Your task to perform on an android device: turn on the 12-hour format for clock Image 0: 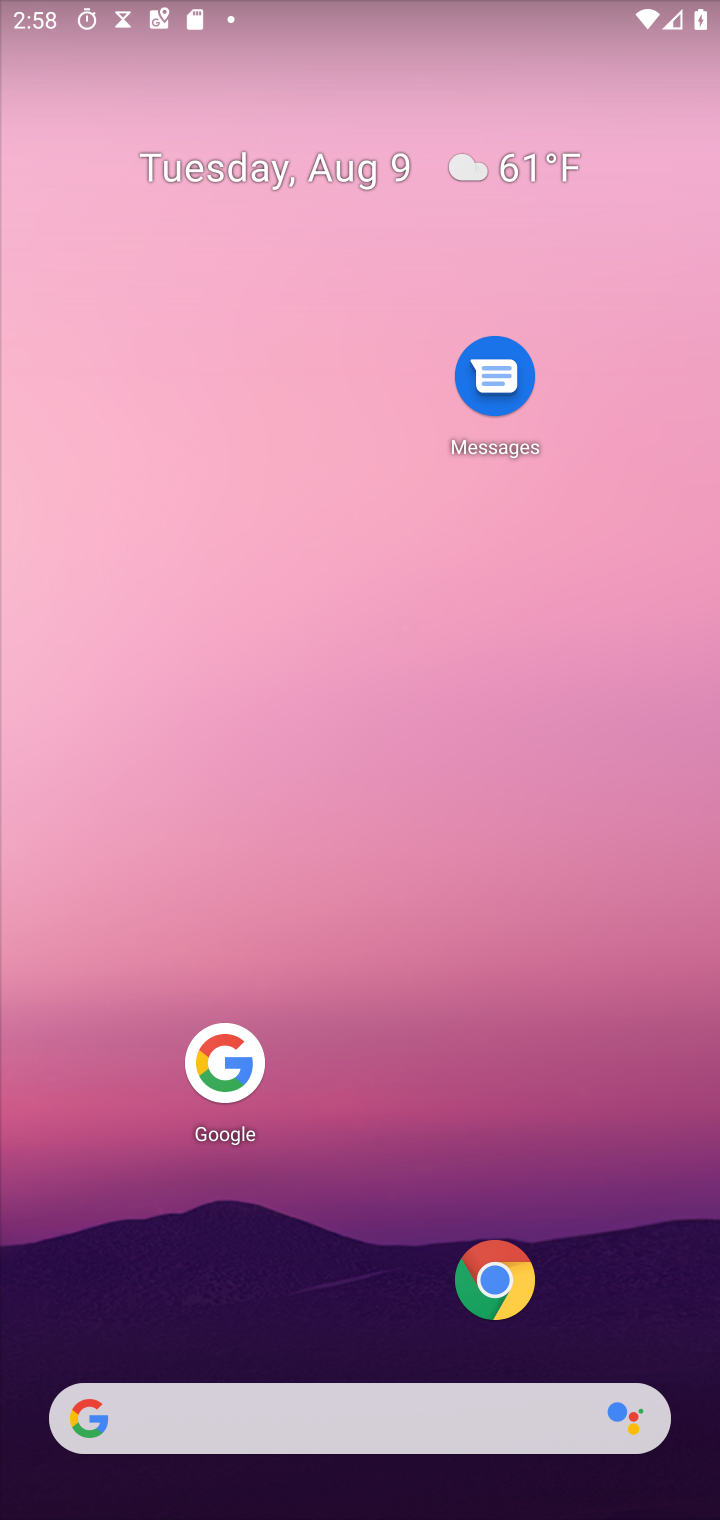
Step 0: press home button
Your task to perform on an android device: turn on the 12-hour format for clock Image 1: 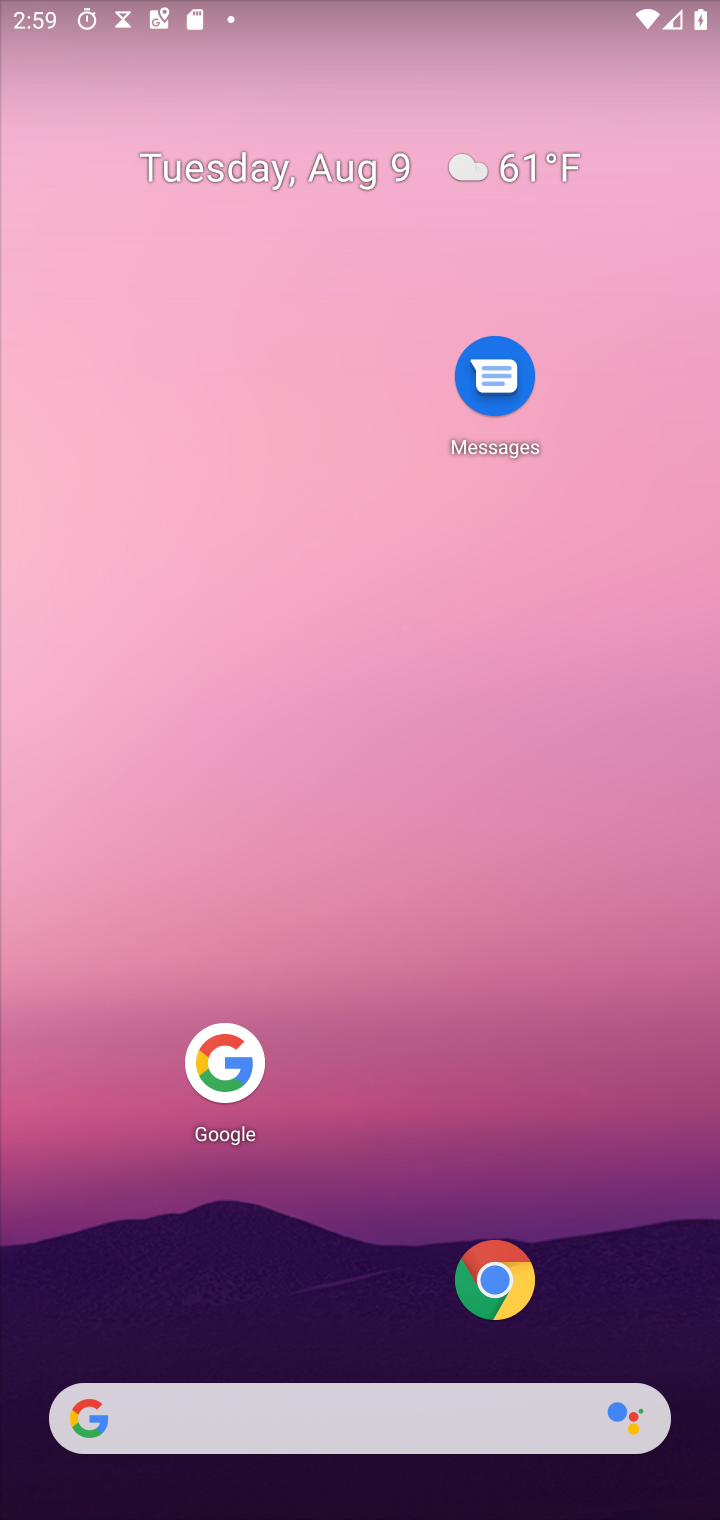
Step 1: drag from (358, 1112) to (472, 136)
Your task to perform on an android device: turn on the 12-hour format for clock Image 2: 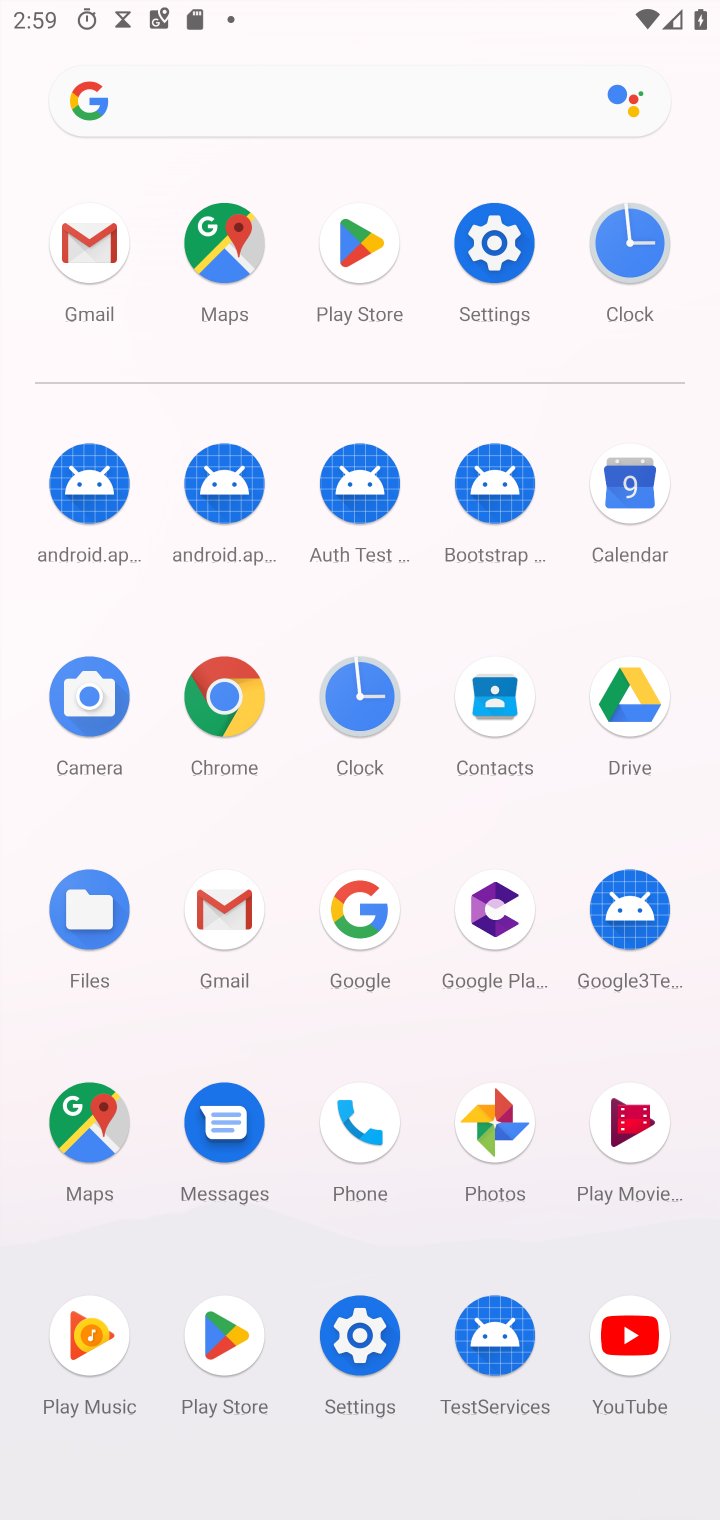
Step 2: click (370, 694)
Your task to perform on an android device: turn on the 12-hour format for clock Image 3: 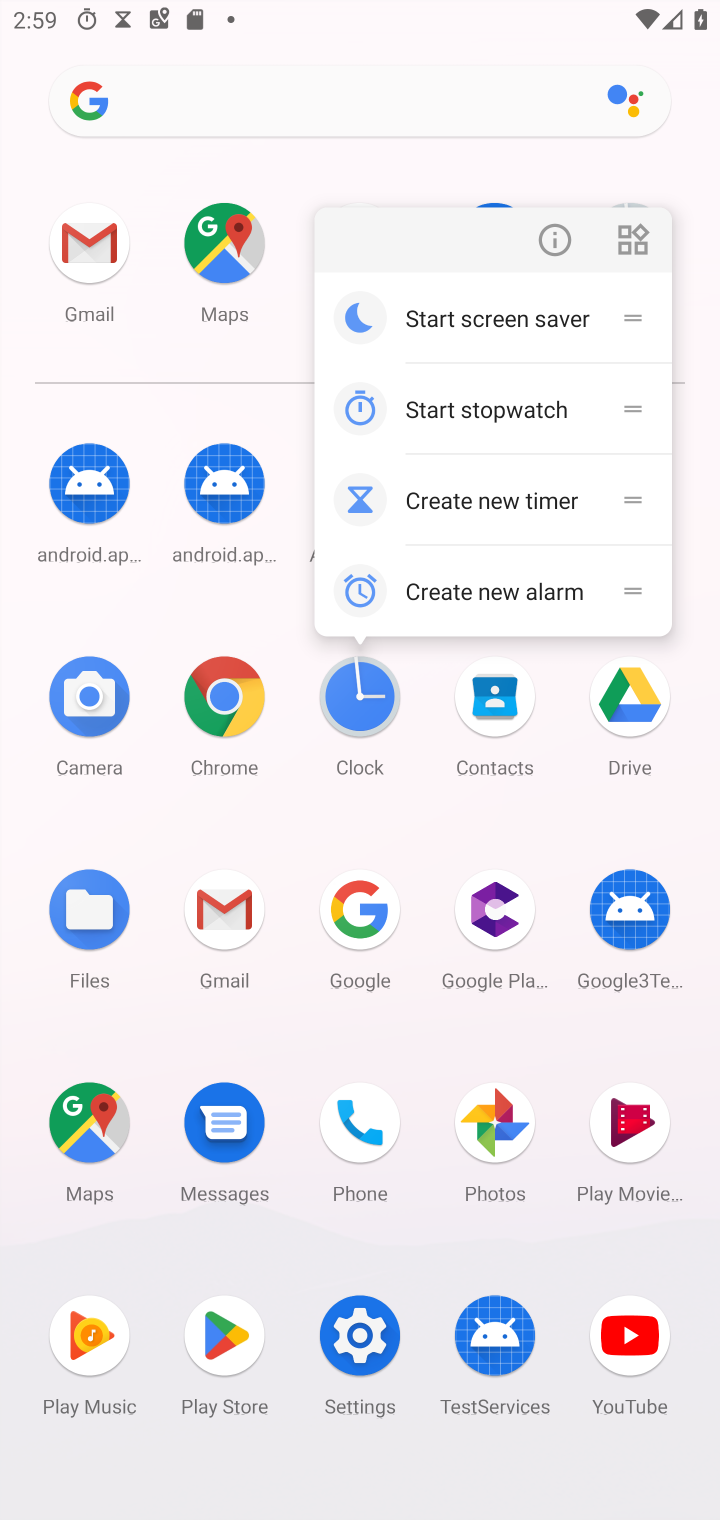
Step 3: click (370, 690)
Your task to perform on an android device: turn on the 12-hour format for clock Image 4: 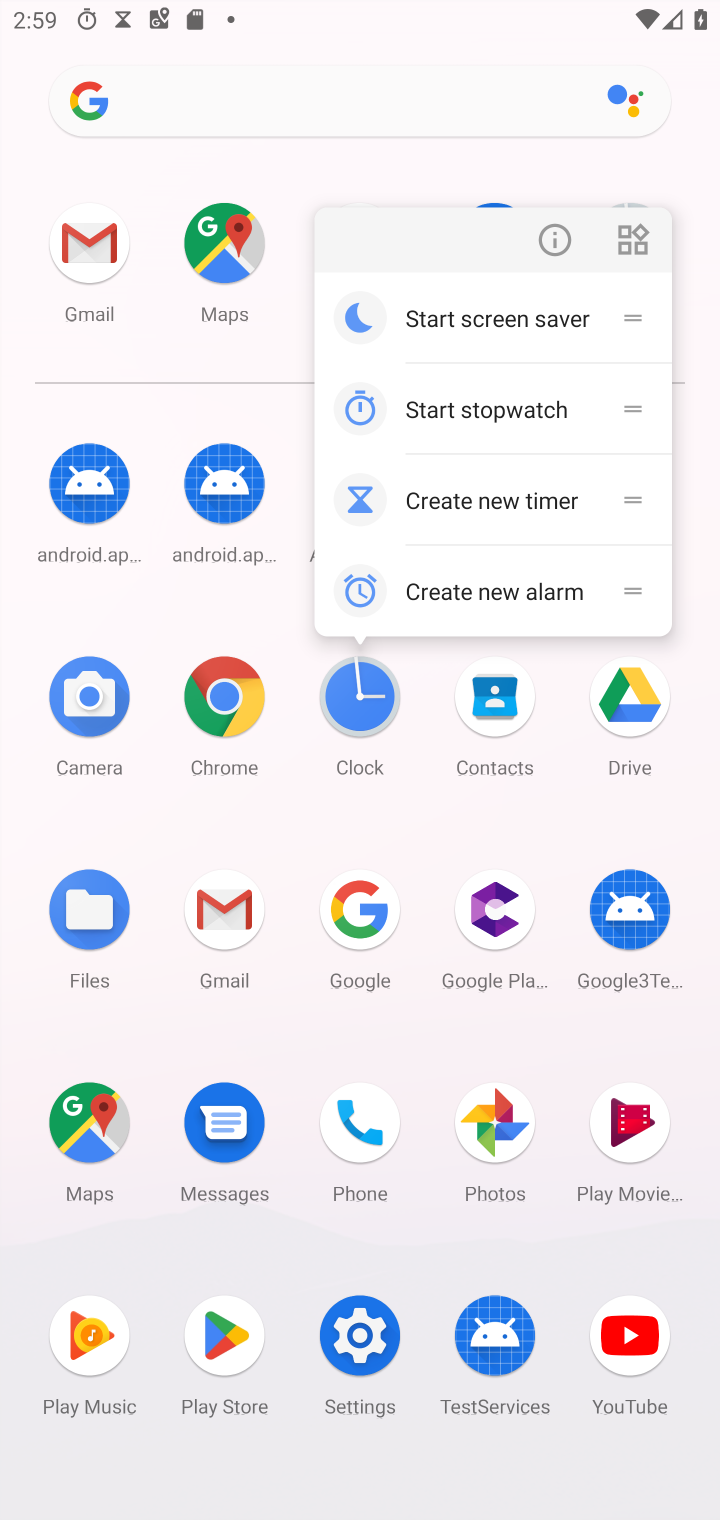
Step 4: click (370, 696)
Your task to perform on an android device: turn on the 12-hour format for clock Image 5: 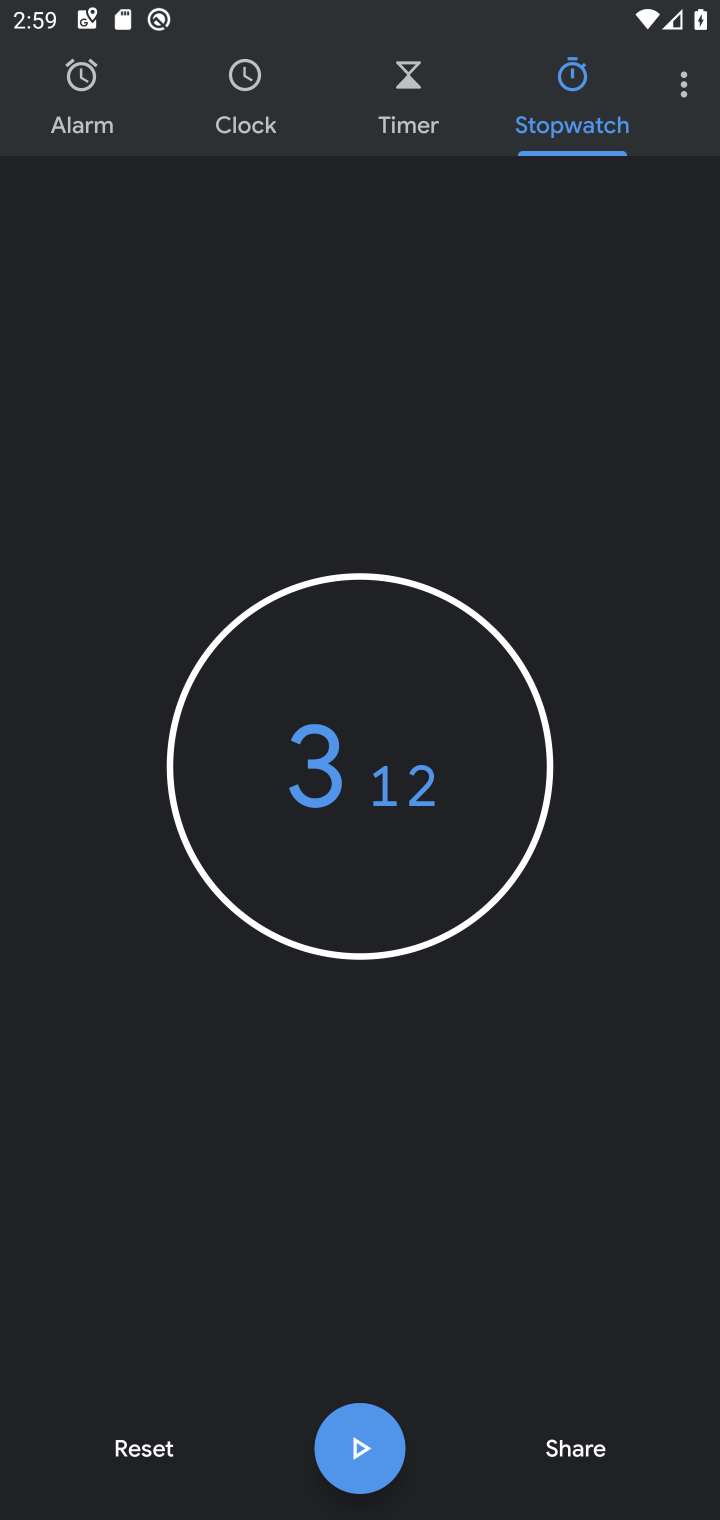
Step 5: click (687, 82)
Your task to perform on an android device: turn on the 12-hour format for clock Image 6: 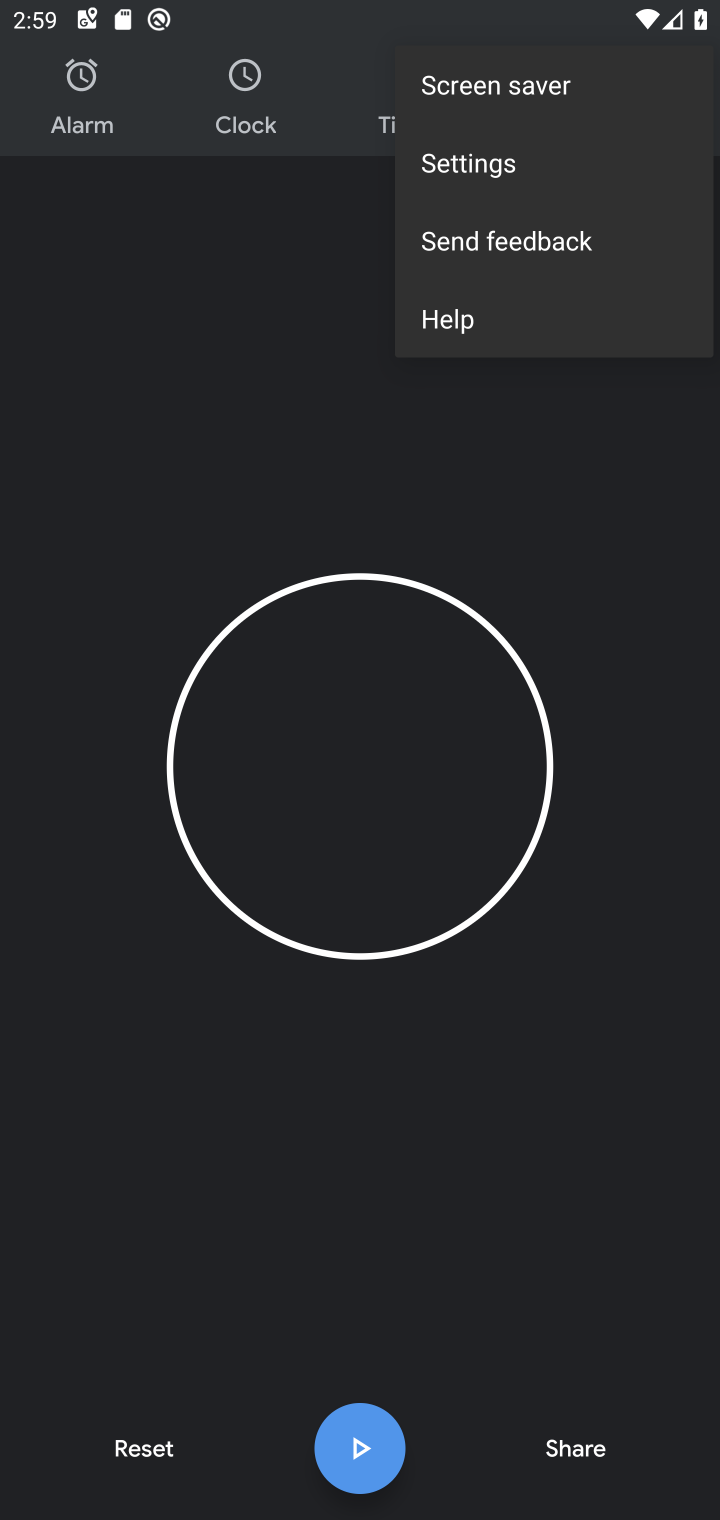
Step 6: click (472, 151)
Your task to perform on an android device: turn on the 12-hour format for clock Image 7: 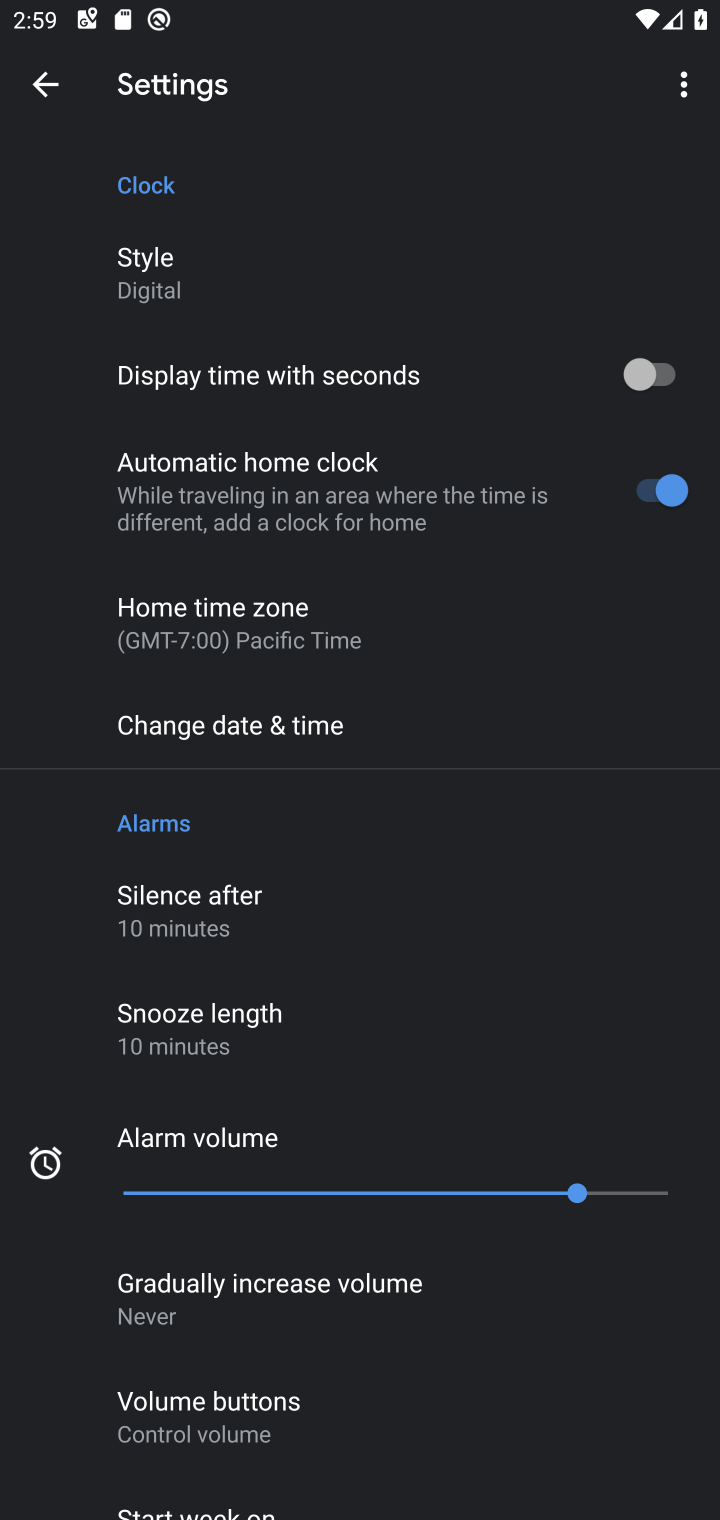
Step 7: click (255, 731)
Your task to perform on an android device: turn on the 12-hour format for clock Image 8: 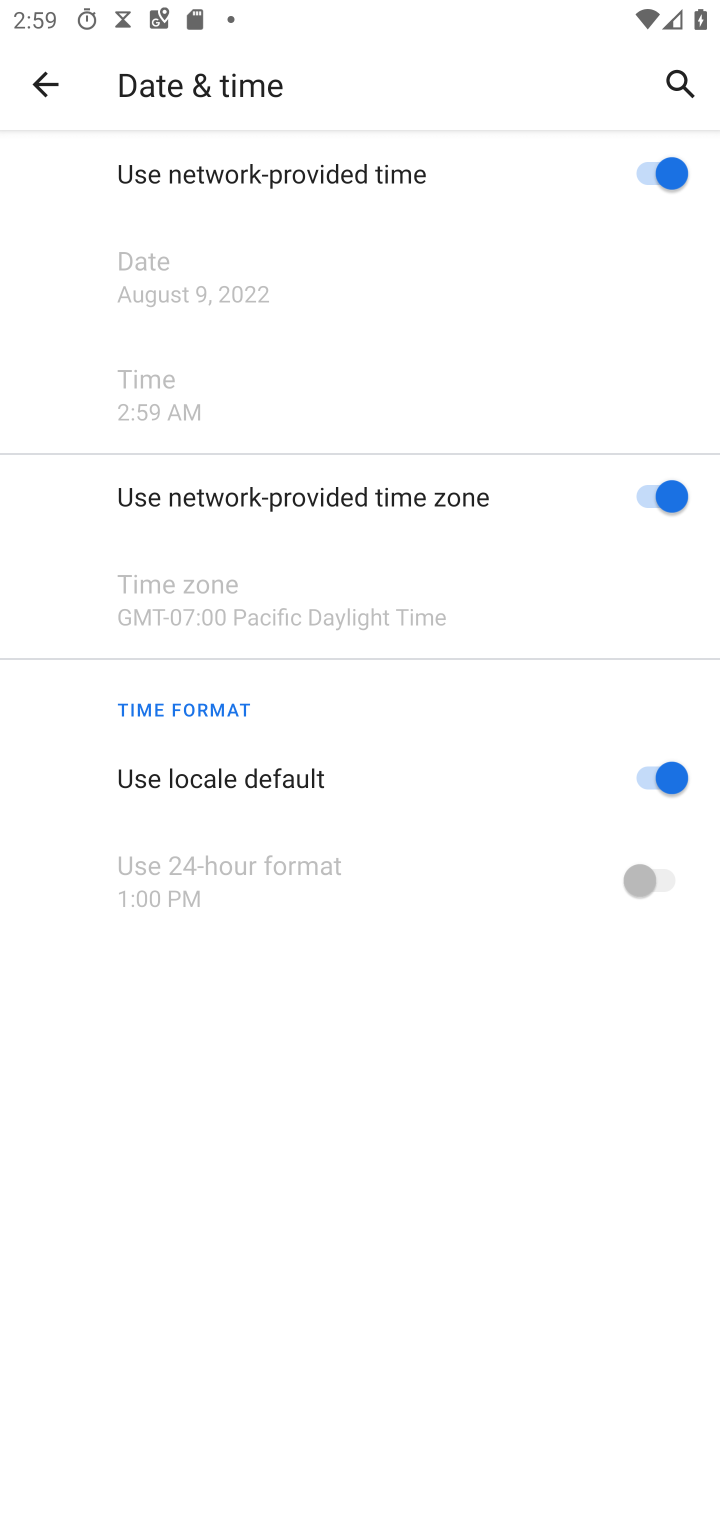
Step 8: task complete